Your task to perform on an android device: turn off translation in the chrome app Image 0: 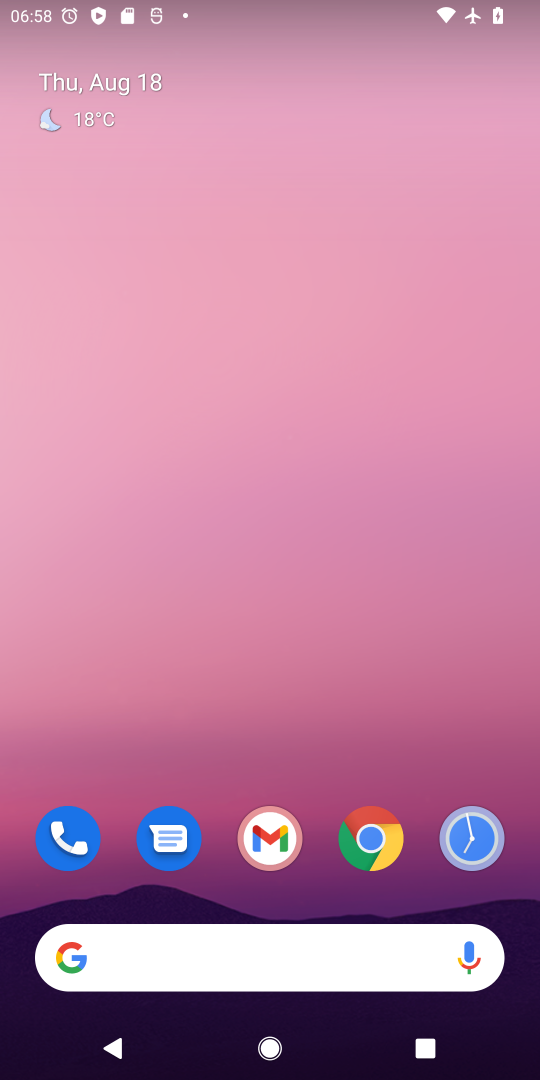
Step 0: press home button
Your task to perform on an android device: turn off translation in the chrome app Image 1: 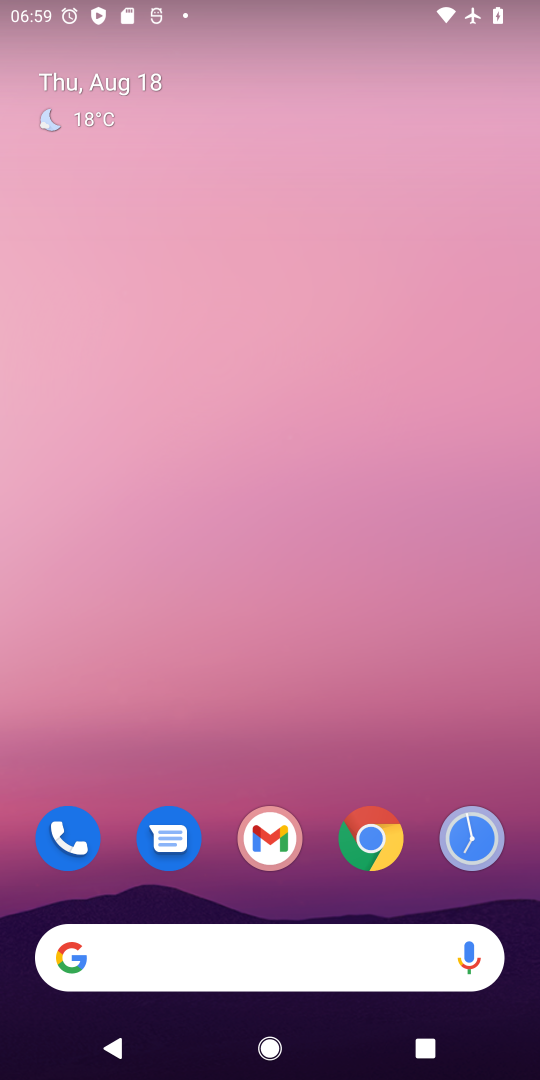
Step 1: press home button
Your task to perform on an android device: turn off translation in the chrome app Image 2: 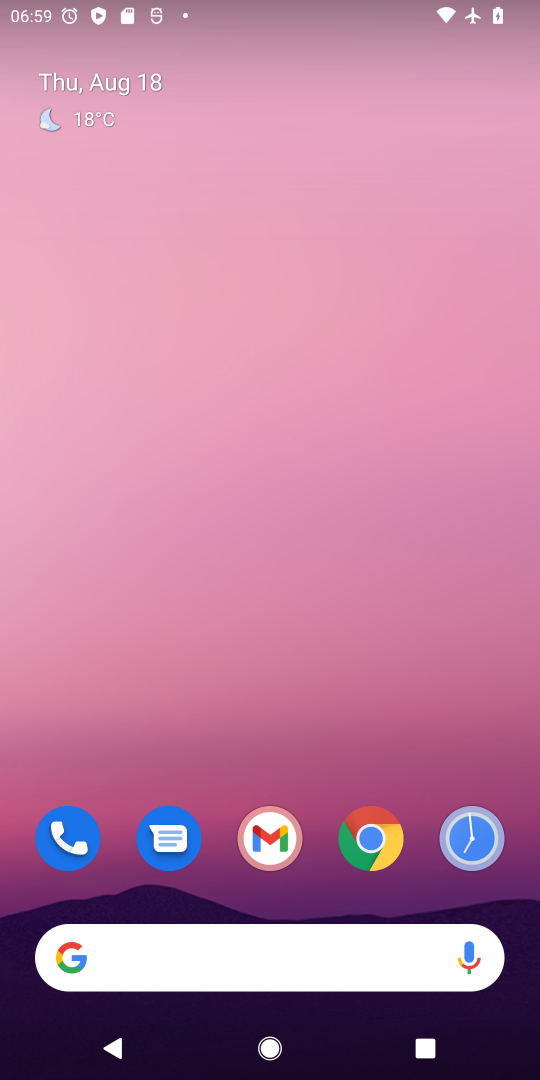
Step 2: click (367, 839)
Your task to perform on an android device: turn off translation in the chrome app Image 3: 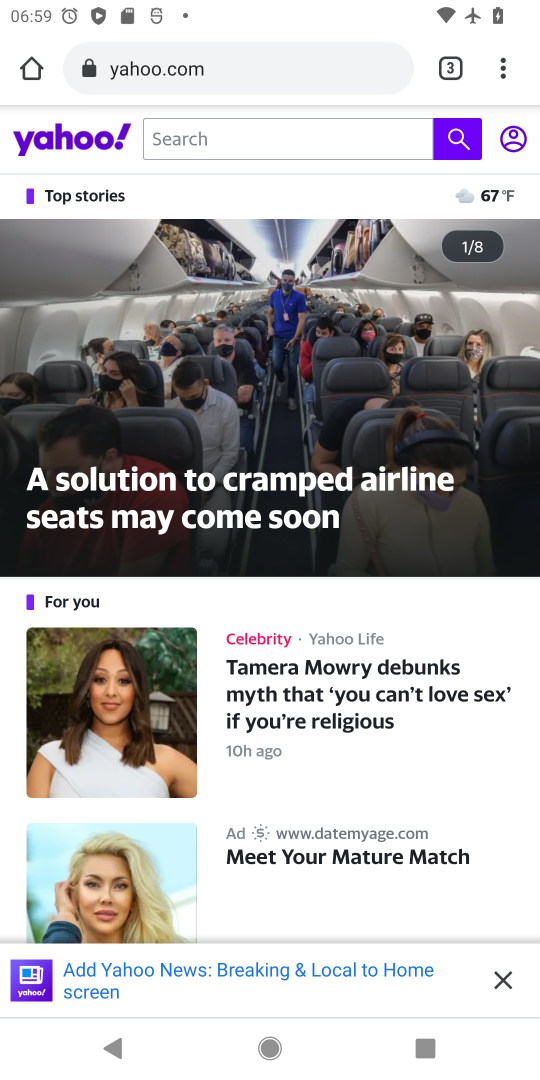
Step 3: drag from (497, 73) to (289, 920)
Your task to perform on an android device: turn off translation in the chrome app Image 4: 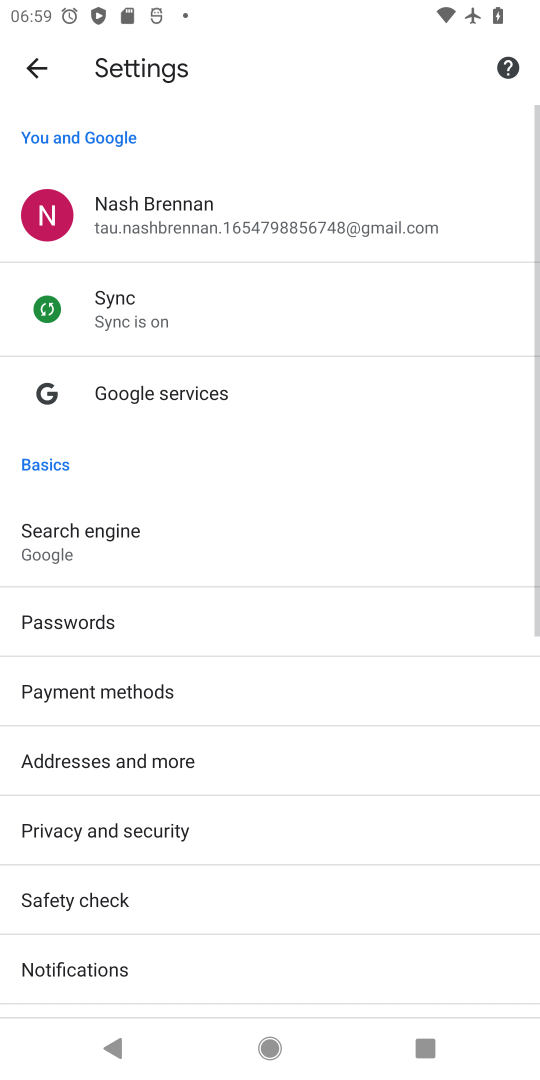
Step 4: drag from (309, 923) to (363, 446)
Your task to perform on an android device: turn off translation in the chrome app Image 5: 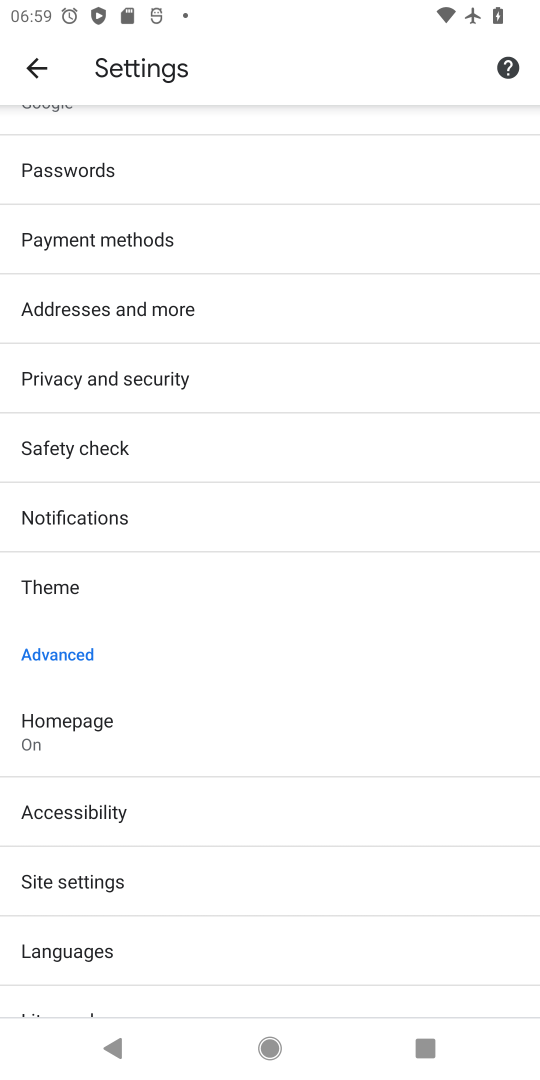
Step 5: click (59, 964)
Your task to perform on an android device: turn off translation in the chrome app Image 6: 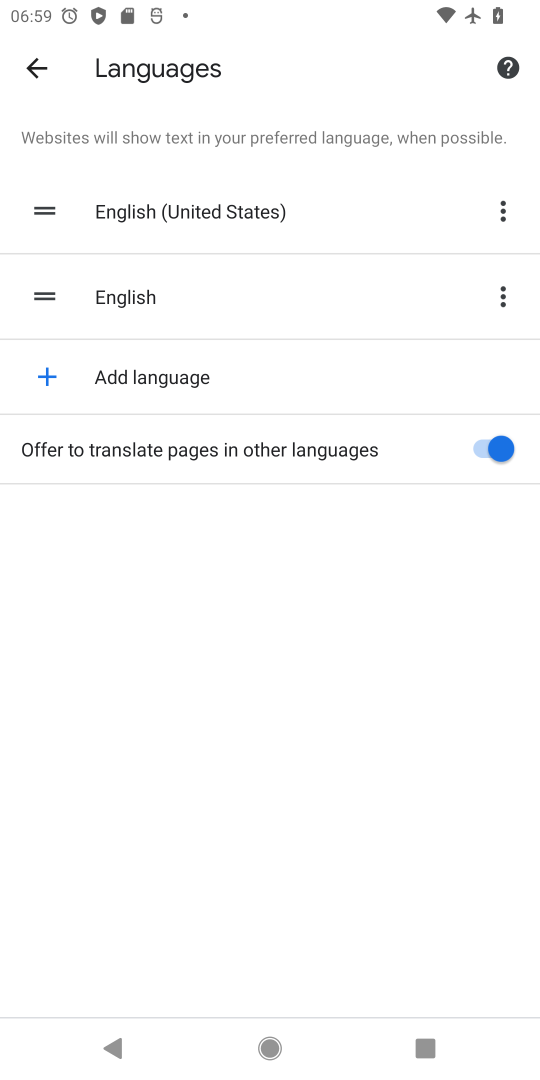
Step 6: click (507, 453)
Your task to perform on an android device: turn off translation in the chrome app Image 7: 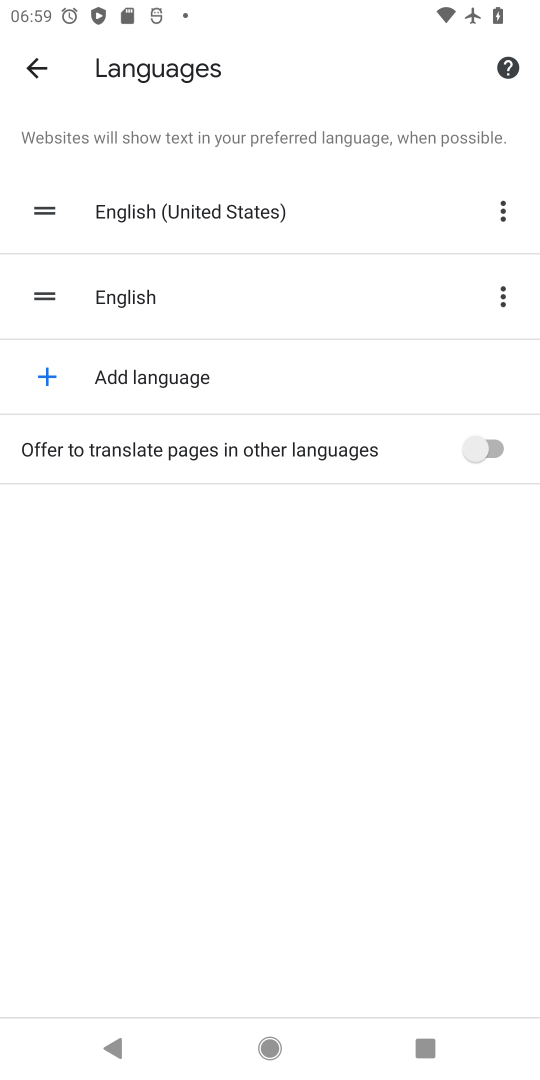
Step 7: task complete